Your task to perform on an android device: Search for floor lamps on article.com Image 0: 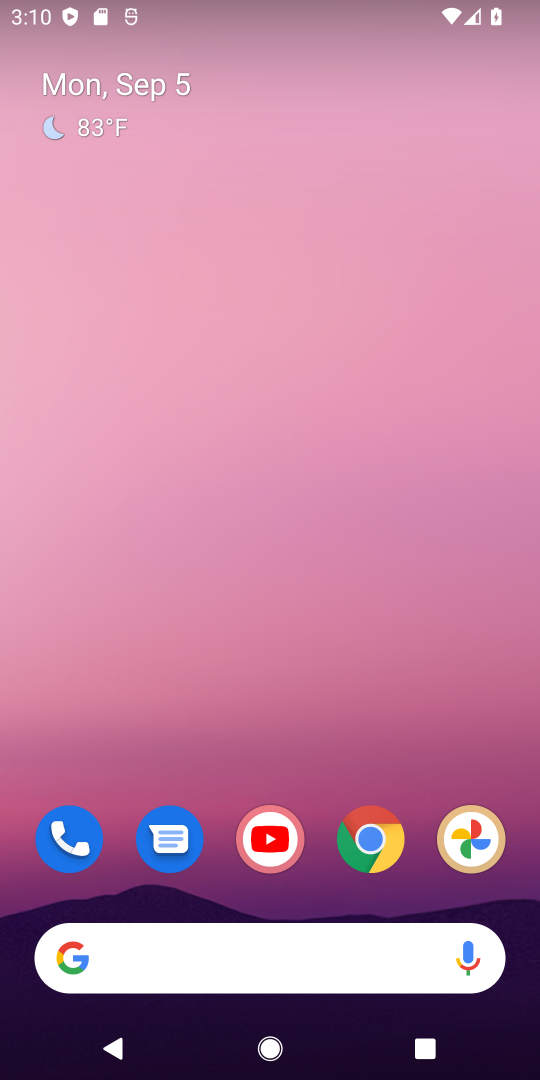
Step 0: click (363, 842)
Your task to perform on an android device: Search for floor lamps on article.com Image 1: 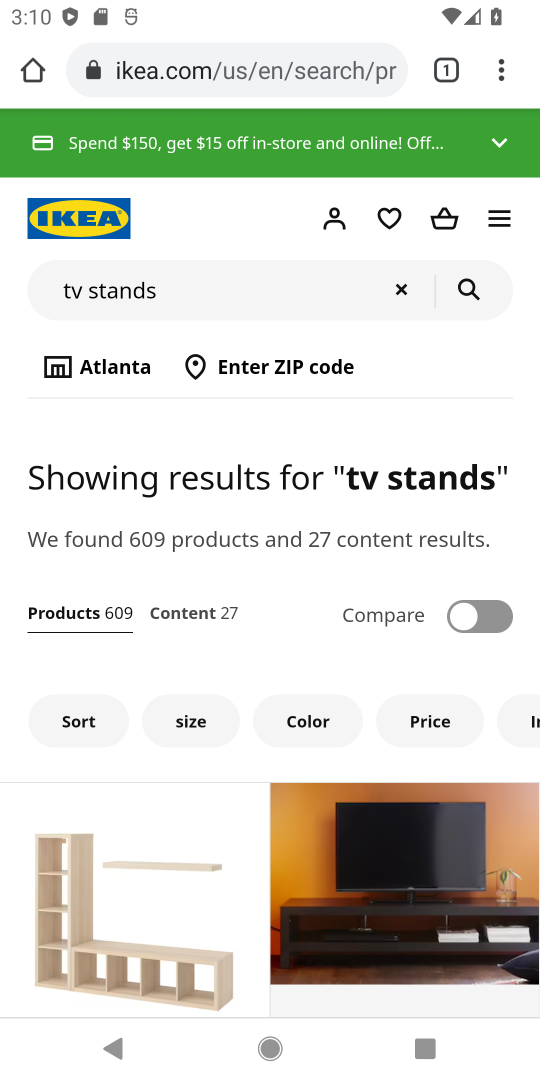
Step 1: click (229, 67)
Your task to perform on an android device: Search for floor lamps on article.com Image 2: 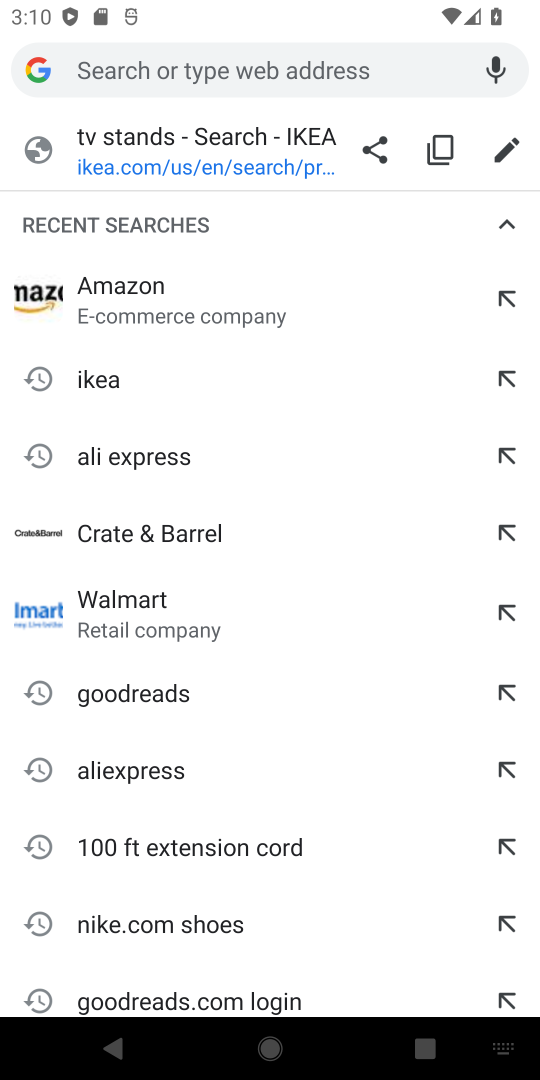
Step 2: type "Article.com"
Your task to perform on an android device: Search for floor lamps on article.com Image 3: 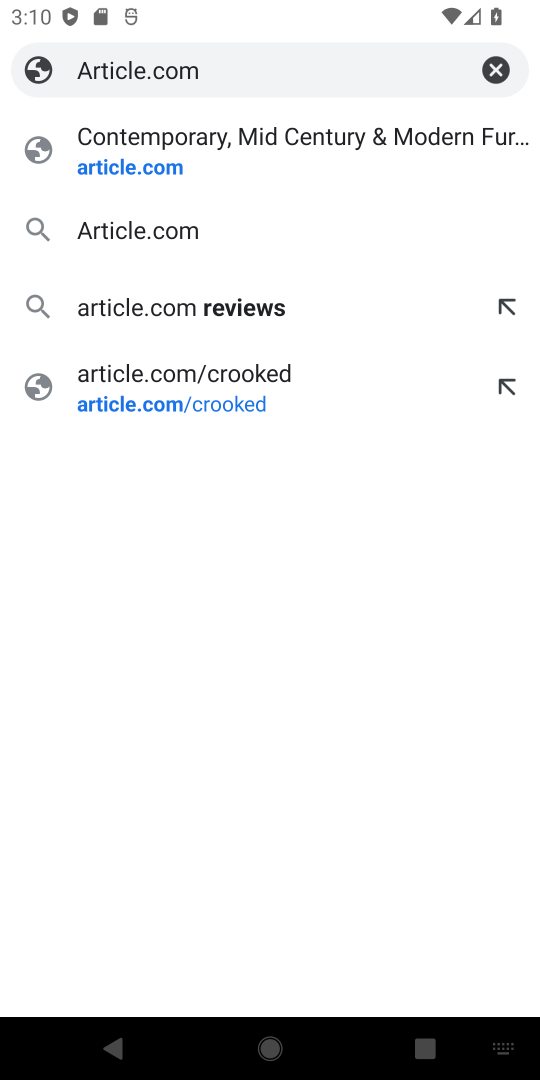
Step 3: click (122, 248)
Your task to perform on an android device: Search for floor lamps on article.com Image 4: 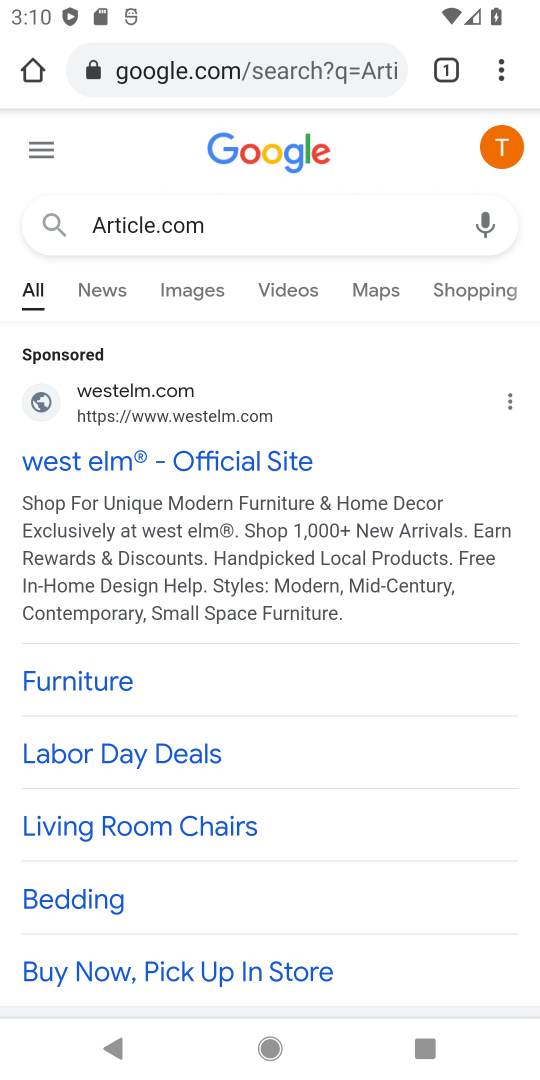
Step 4: drag from (268, 834) to (304, 404)
Your task to perform on an android device: Search for floor lamps on article.com Image 5: 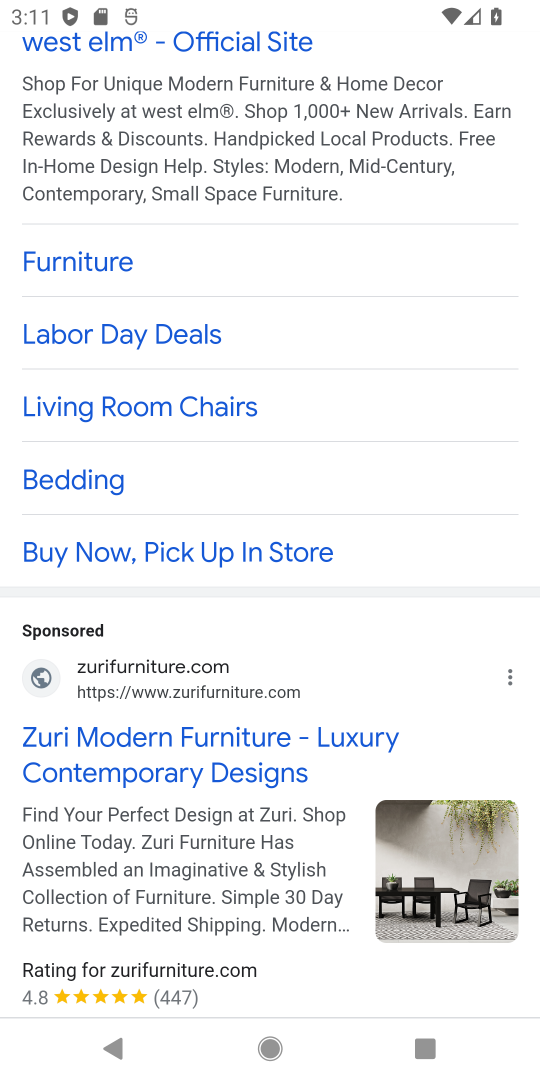
Step 5: drag from (146, 972) to (254, 492)
Your task to perform on an android device: Search for floor lamps on article.com Image 6: 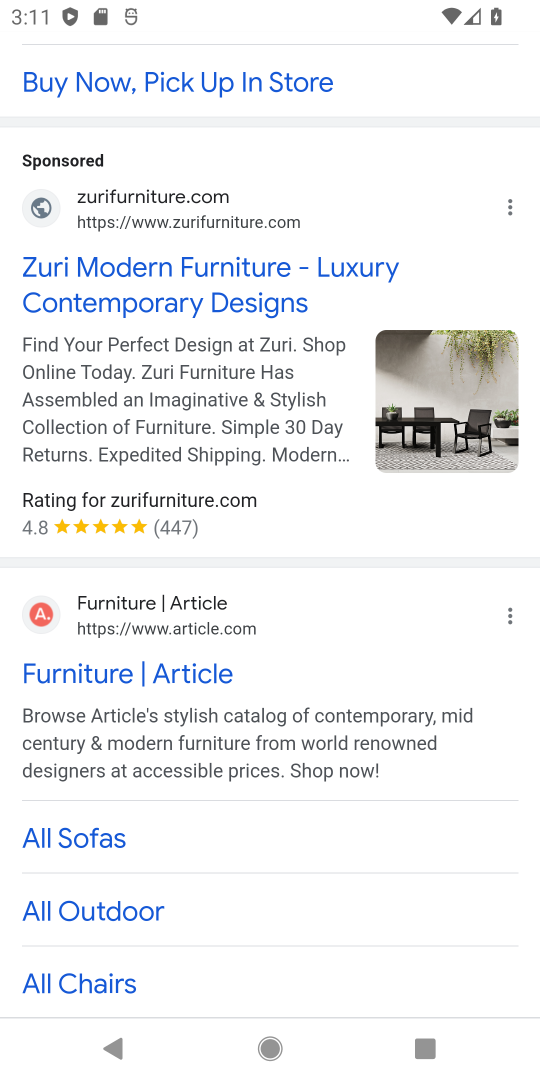
Step 6: click (90, 680)
Your task to perform on an android device: Search for floor lamps on article.com Image 7: 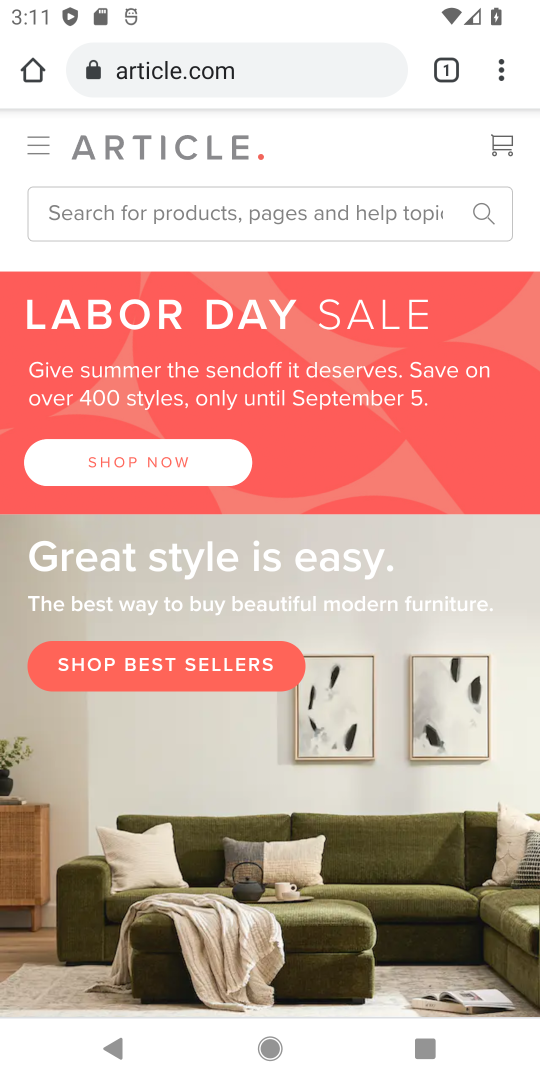
Step 7: click (163, 206)
Your task to perform on an android device: Search for floor lamps on article.com Image 8: 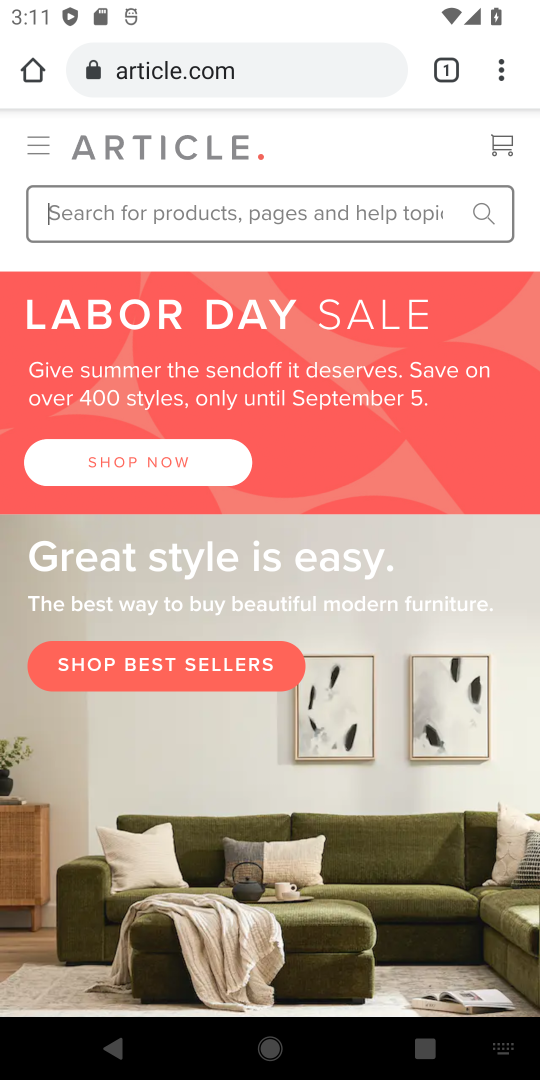
Step 8: type "floor lamps"
Your task to perform on an android device: Search for floor lamps on article.com Image 9: 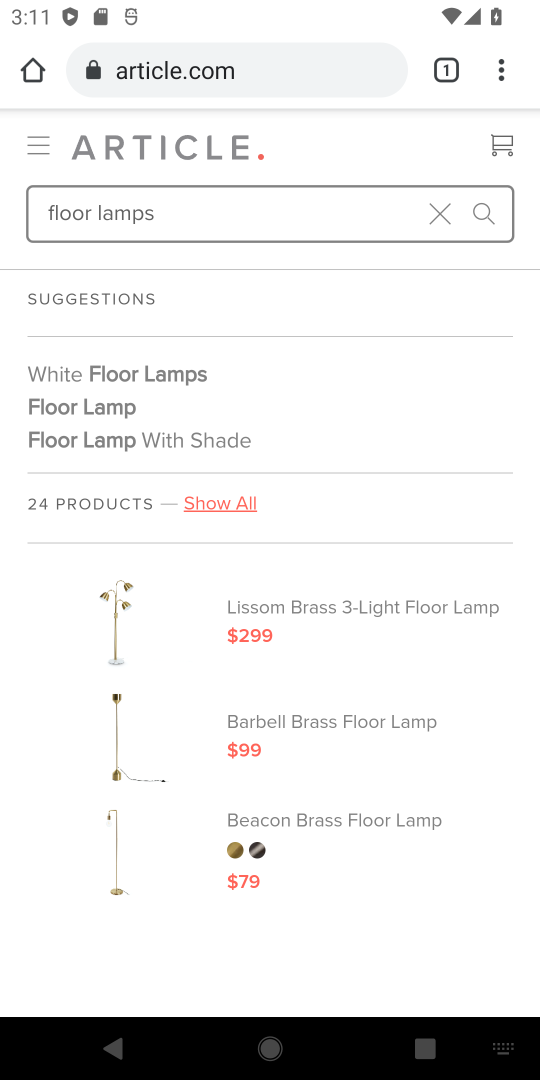
Step 9: click (151, 389)
Your task to perform on an android device: Search for floor lamps on article.com Image 10: 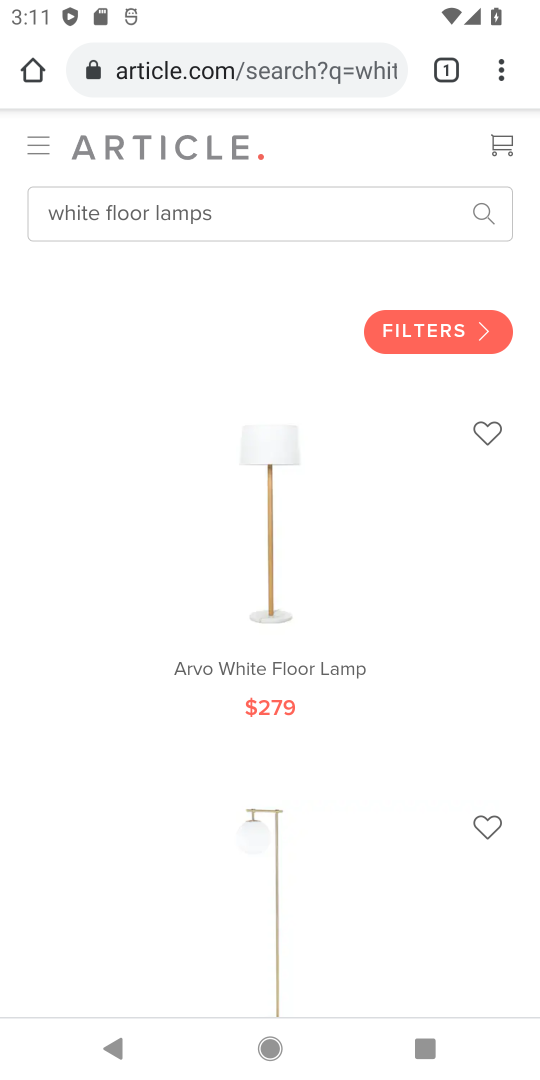
Step 10: task complete